Your task to perform on an android device: turn pop-ups on in chrome Image 0: 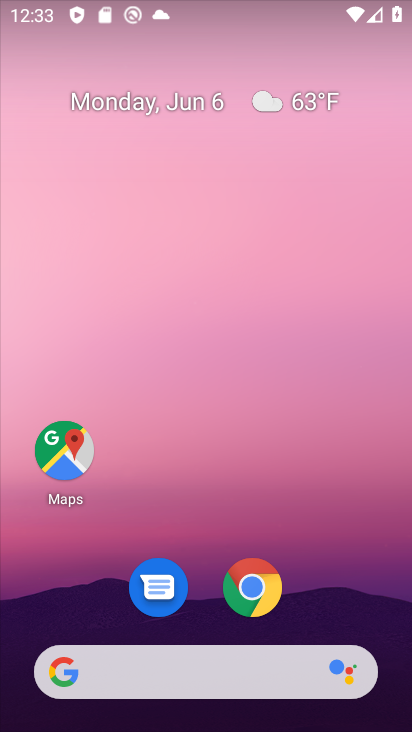
Step 0: click (261, 592)
Your task to perform on an android device: turn pop-ups on in chrome Image 1: 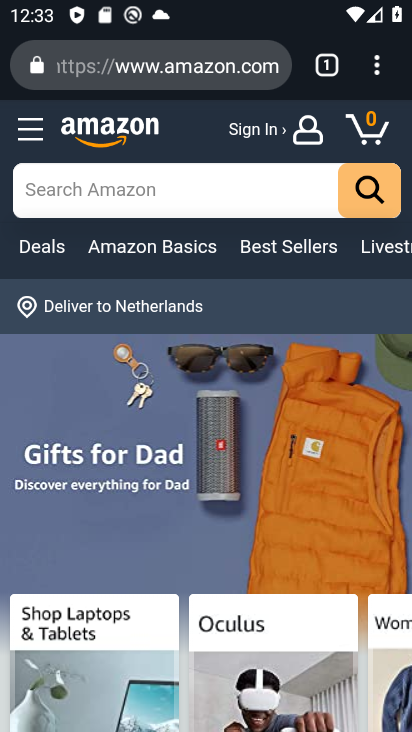
Step 1: click (372, 60)
Your task to perform on an android device: turn pop-ups on in chrome Image 2: 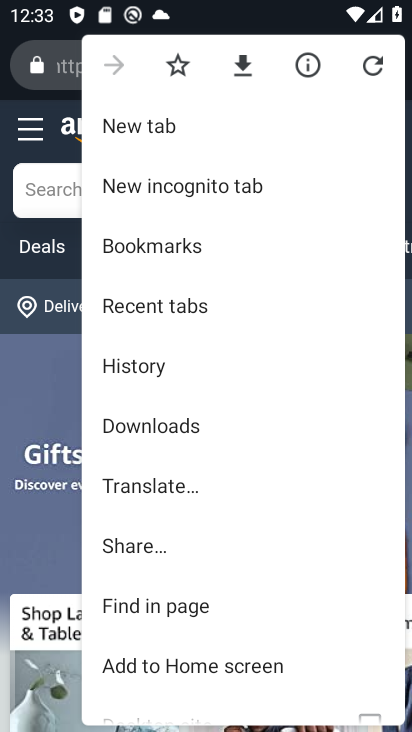
Step 2: drag from (266, 625) to (241, 204)
Your task to perform on an android device: turn pop-ups on in chrome Image 3: 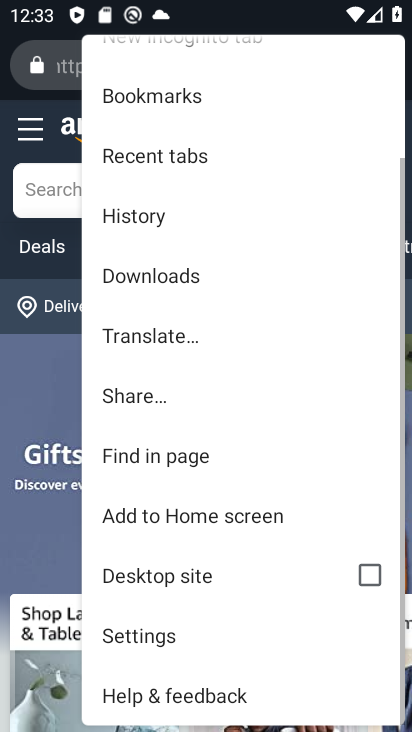
Step 3: click (152, 637)
Your task to perform on an android device: turn pop-ups on in chrome Image 4: 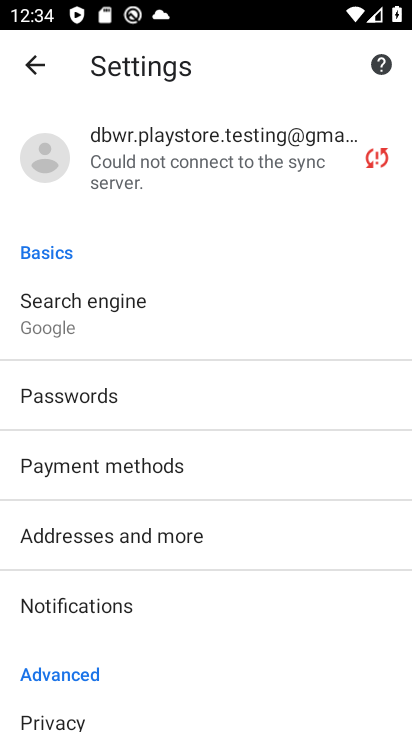
Step 4: drag from (167, 682) to (147, 246)
Your task to perform on an android device: turn pop-ups on in chrome Image 5: 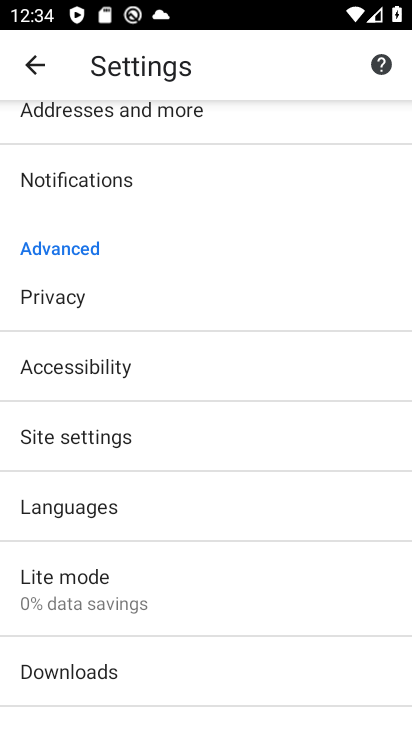
Step 5: click (66, 438)
Your task to perform on an android device: turn pop-ups on in chrome Image 6: 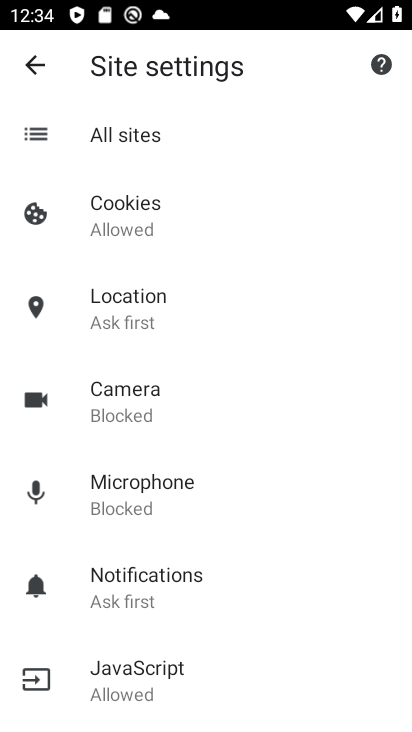
Step 6: drag from (229, 671) to (231, 287)
Your task to perform on an android device: turn pop-ups on in chrome Image 7: 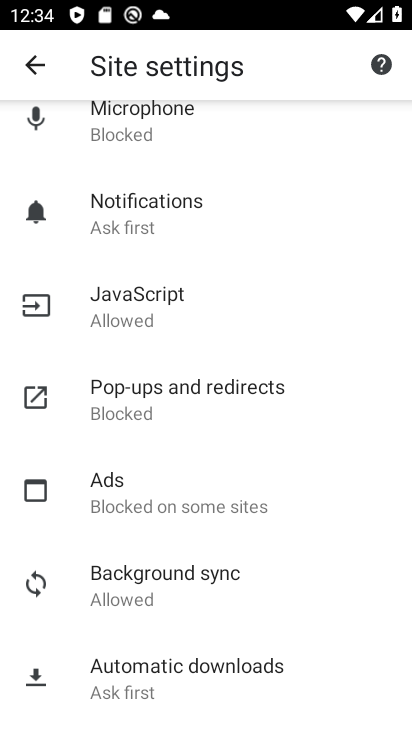
Step 7: click (108, 399)
Your task to perform on an android device: turn pop-ups on in chrome Image 8: 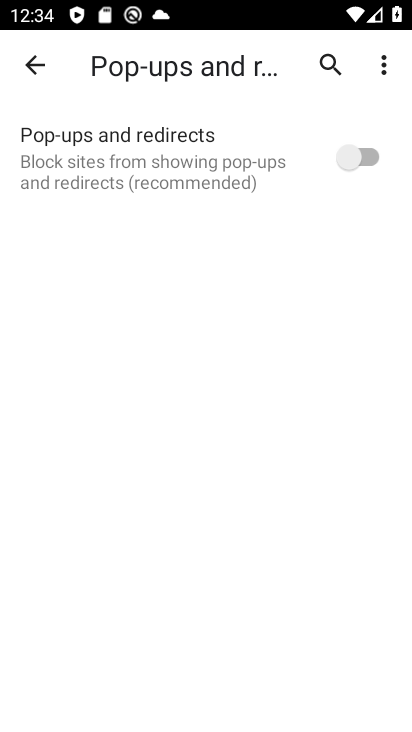
Step 8: click (370, 162)
Your task to perform on an android device: turn pop-ups on in chrome Image 9: 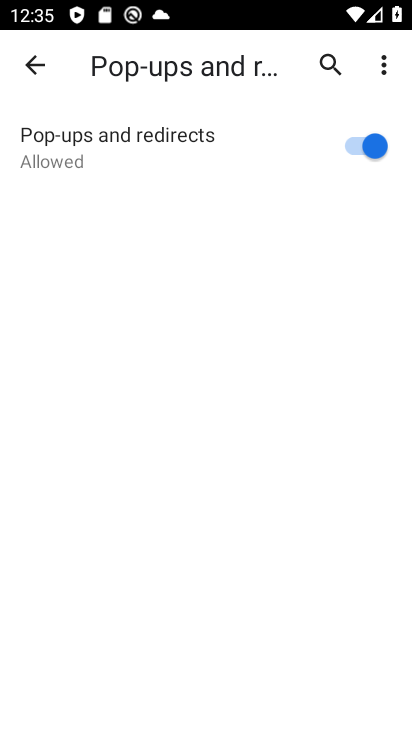
Step 9: task complete